Your task to perform on an android device: Open notification settings Image 0: 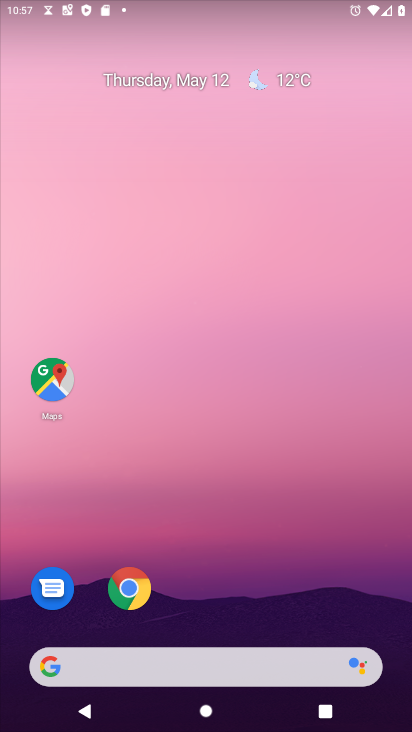
Step 0: drag from (257, 590) to (195, 146)
Your task to perform on an android device: Open notification settings Image 1: 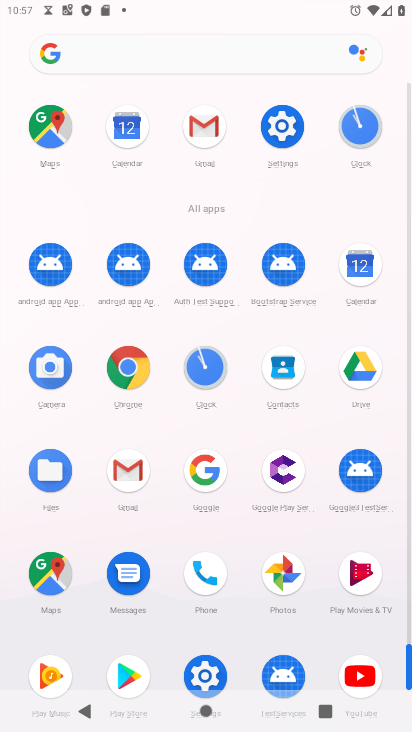
Step 1: click (281, 128)
Your task to perform on an android device: Open notification settings Image 2: 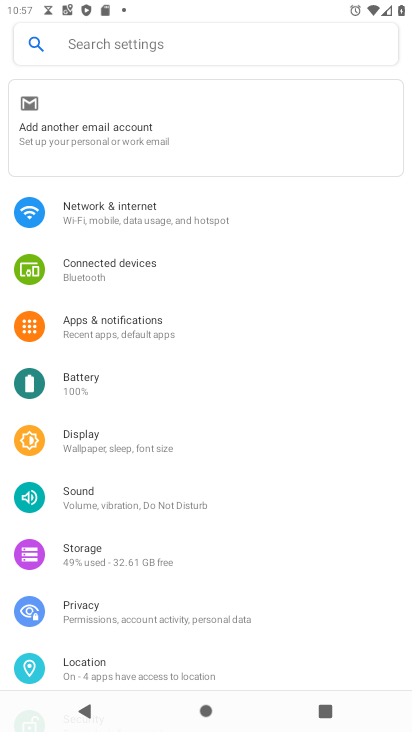
Step 2: click (150, 324)
Your task to perform on an android device: Open notification settings Image 3: 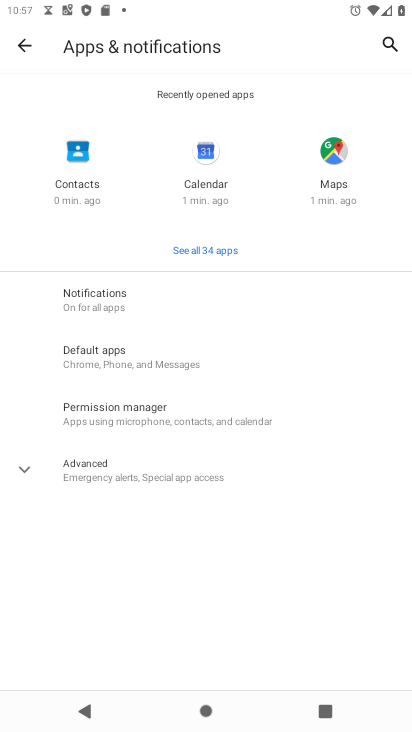
Step 3: click (94, 288)
Your task to perform on an android device: Open notification settings Image 4: 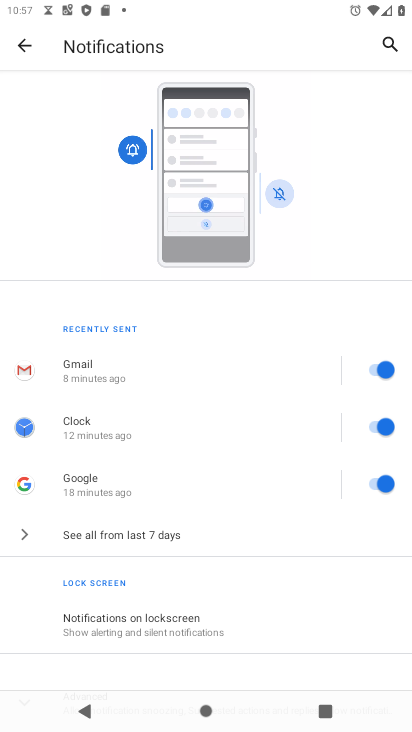
Step 4: task complete